Your task to perform on an android device: change the clock display to digital Image 0: 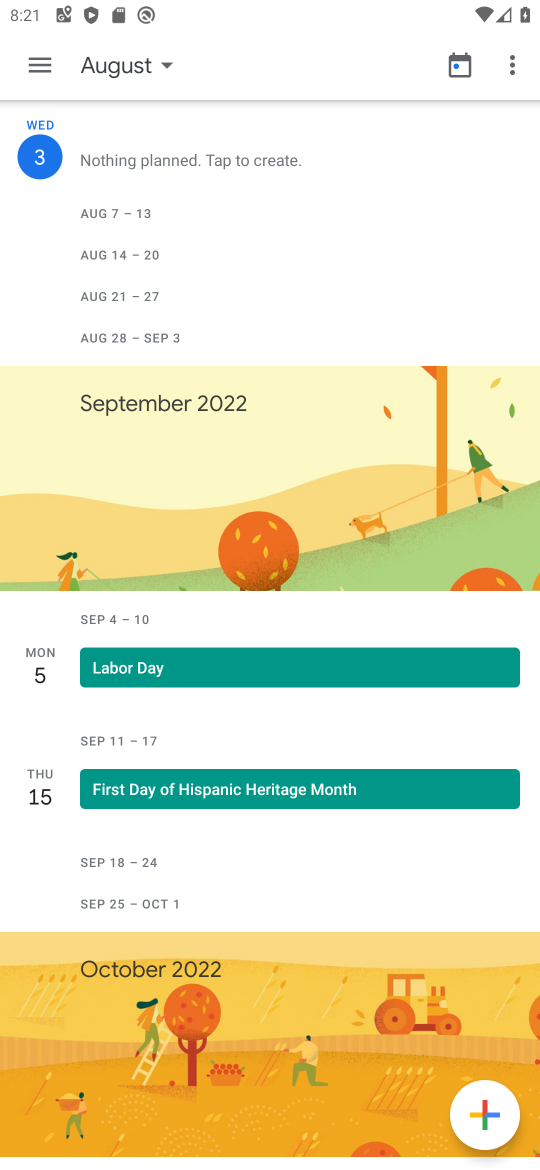
Step 0: press home button
Your task to perform on an android device: change the clock display to digital Image 1: 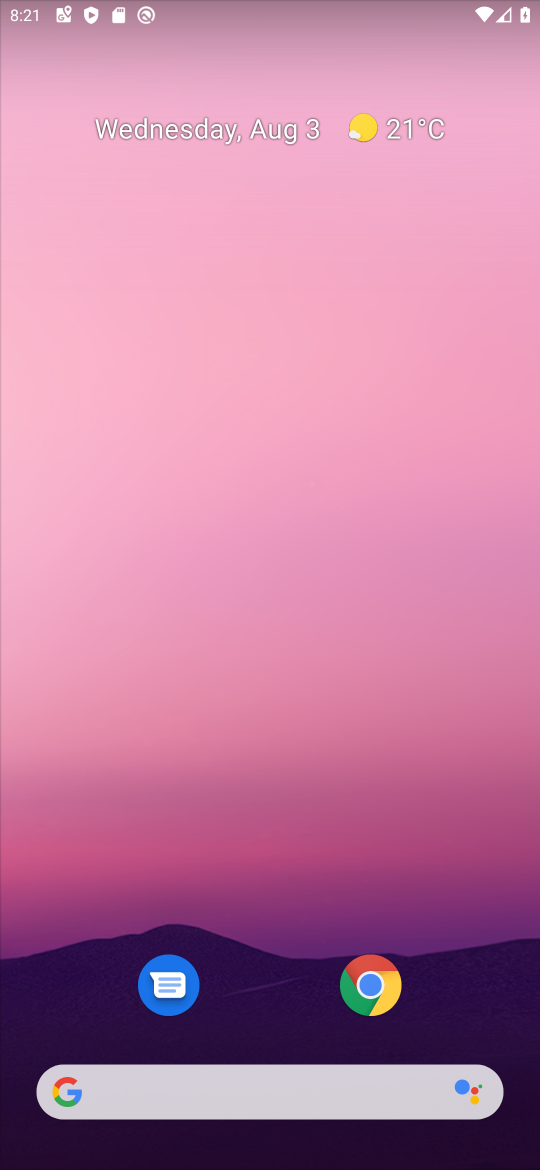
Step 1: drag from (262, 974) to (253, 243)
Your task to perform on an android device: change the clock display to digital Image 2: 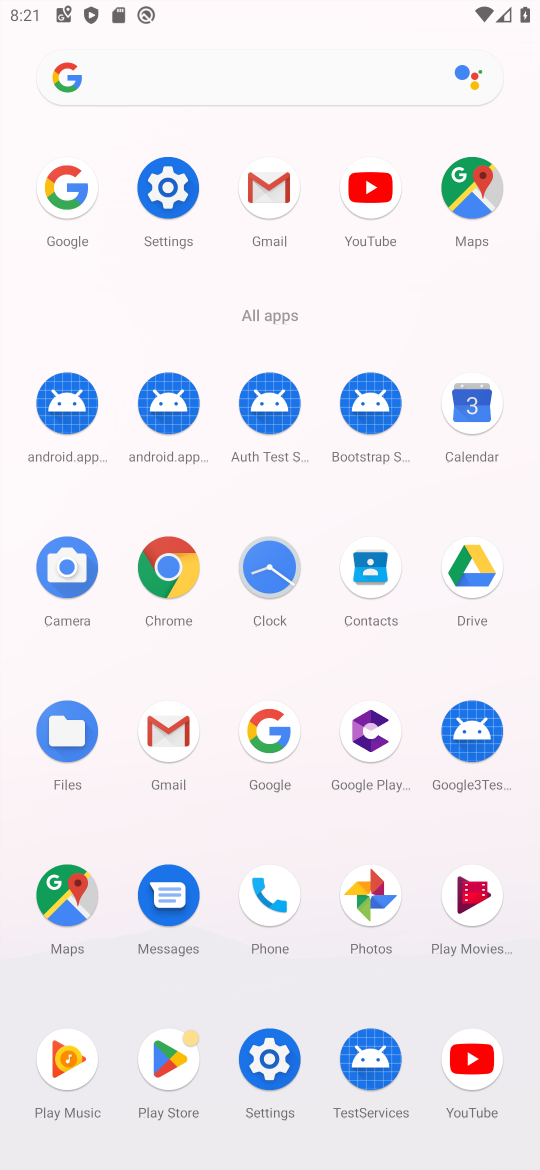
Step 2: click (286, 575)
Your task to perform on an android device: change the clock display to digital Image 3: 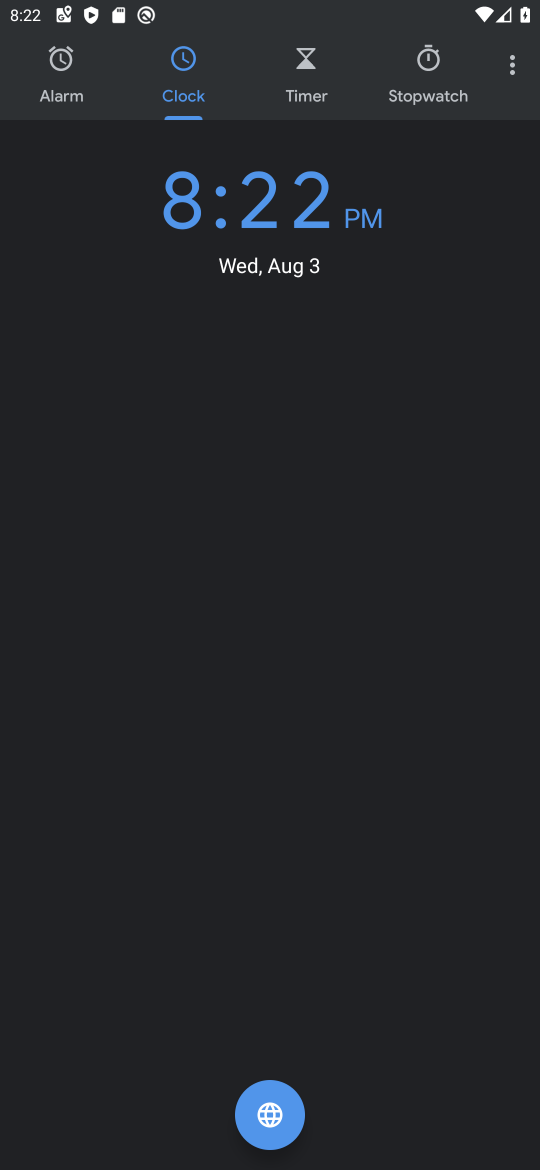
Step 3: click (503, 75)
Your task to perform on an android device: change the clock display to digital Image 4: 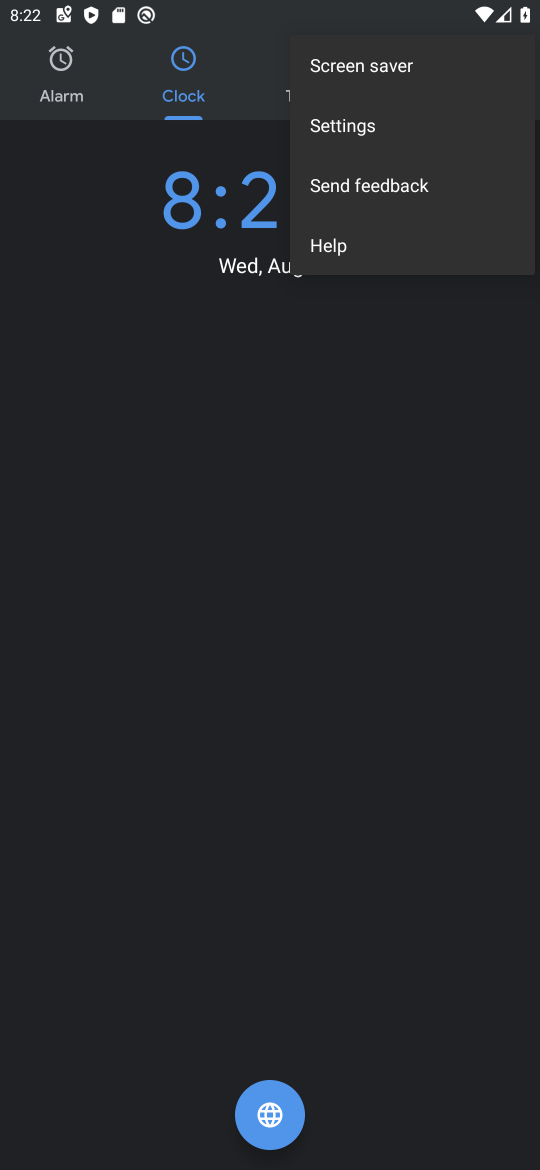
Step 4: click (400, 120)
Your task to perform on an android device: change the clock display to digital Image 5: 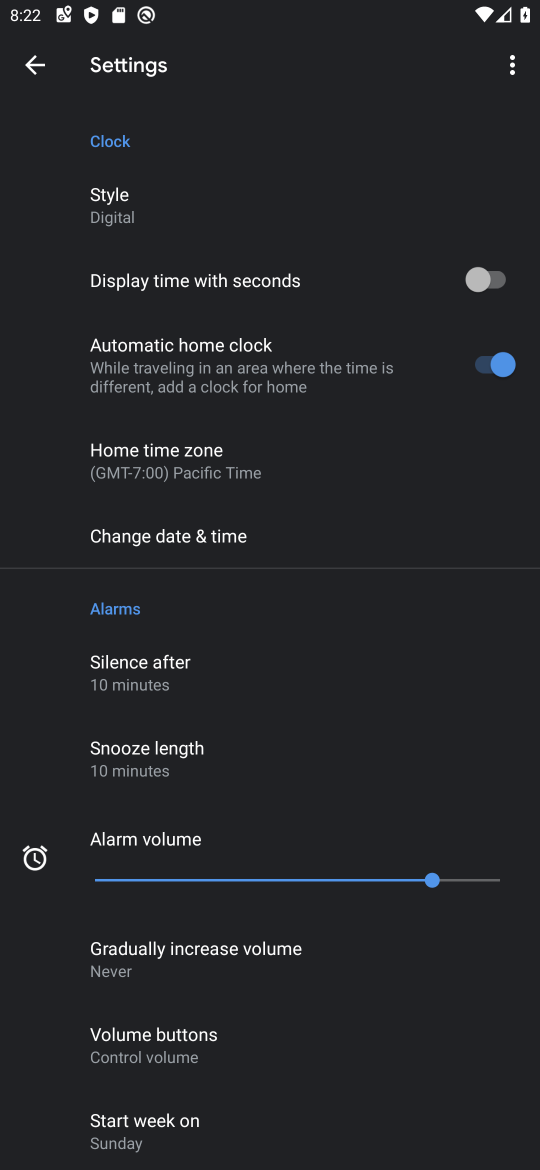
Step 5: click (184, 195)
Your task to perform on an android device: change the clock display to digital Image 6: 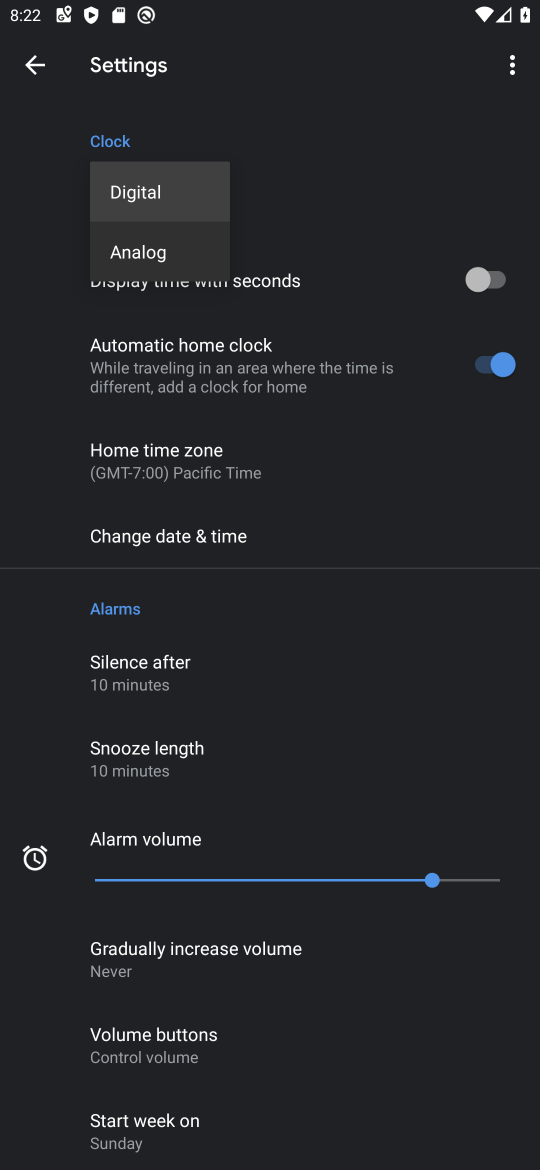
Step 6: task complete